Your task to perform on an android device: Go to location settings Image 0: 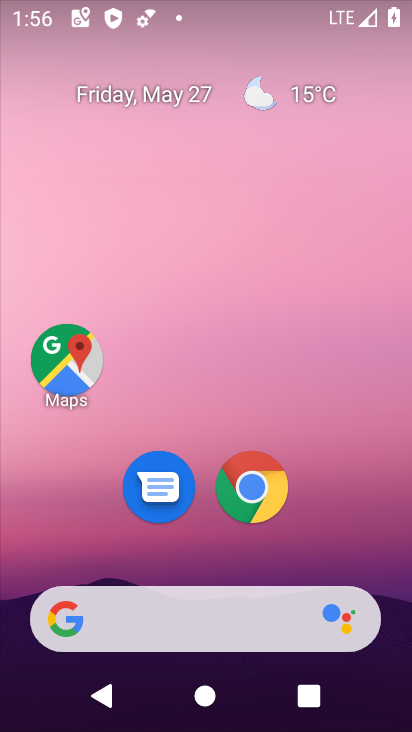
Step 0: drag from (355, 453) to (408, 48)
Your task to perform on an android device: Go to location settings Image 1: 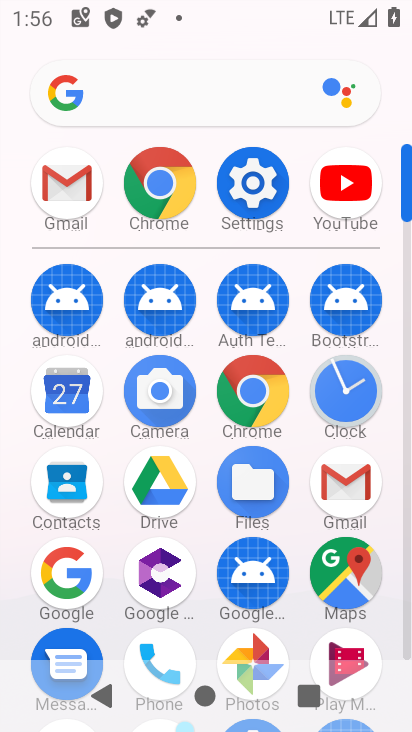
Step 1: click (273, 184)
Your task to perform on an android device: Go to location settings Image 2: 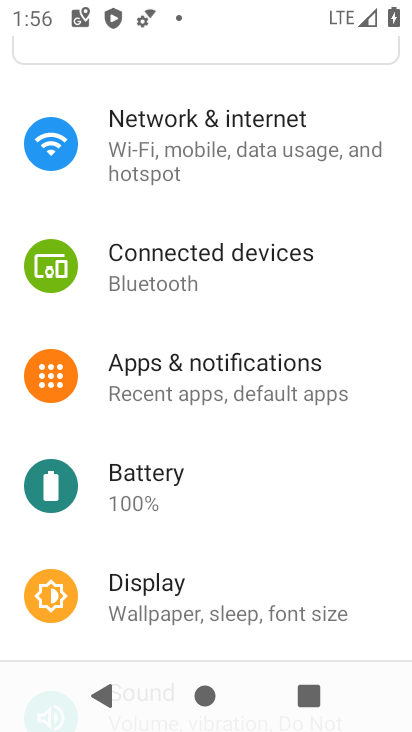
Step 2: drag from (330, 478) to (306, 102)
Your task to perform on an android device: Go to location settings Image 3: 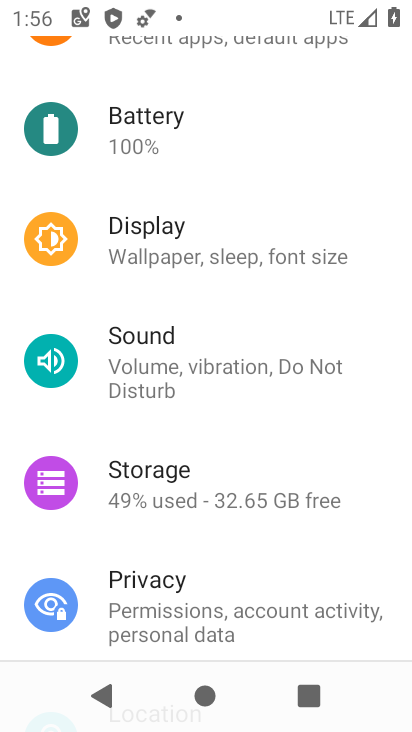
Step 3: drag from (292, 523) to (292, 153)
Your task to perform on an android device: Go to location settings Image 4: 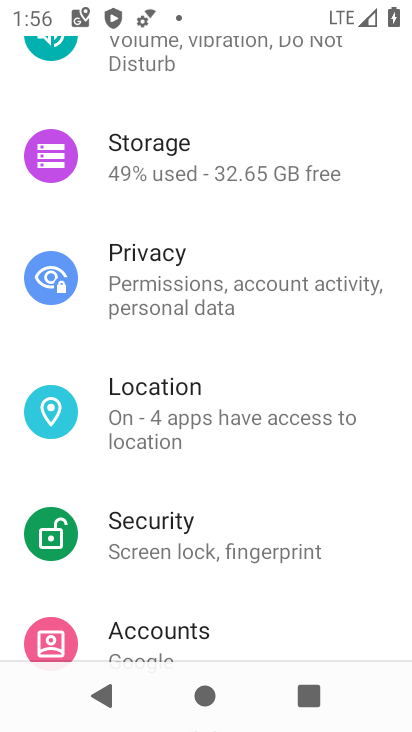
Step 4: click (277, 399)
Your task to perform on an android device: Go to location settings Image 5: 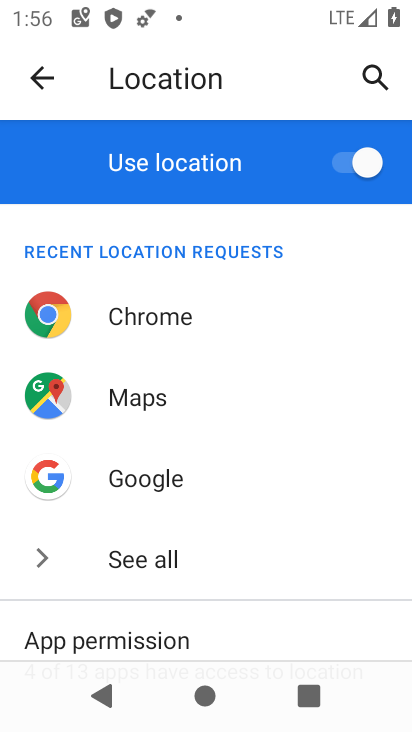
Step 5: task complete